Your task to perform on an android device: check battery use Image 0: 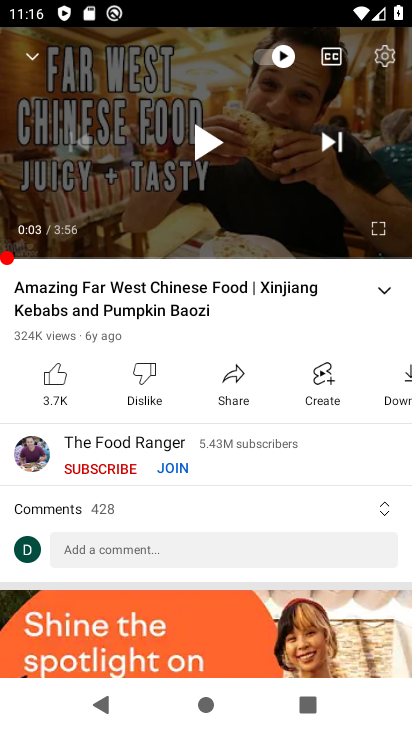
Step 0: press home button
Your task to perform on an android device: check battery use Image 1: 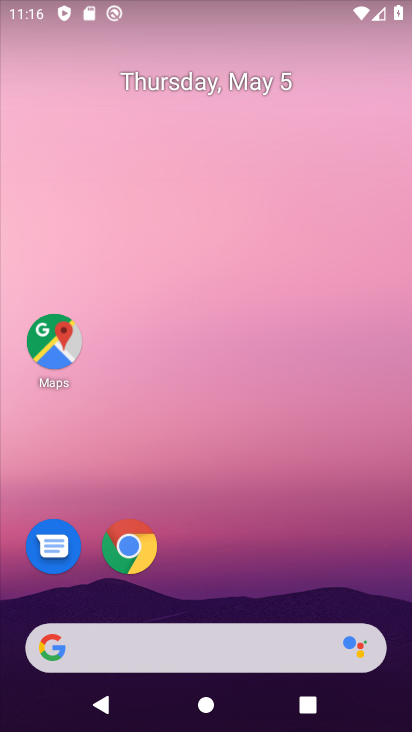
Step 1: drag from (241, 599) to (152, 75)
Your task to perform on an android device: check battery use Image 2: 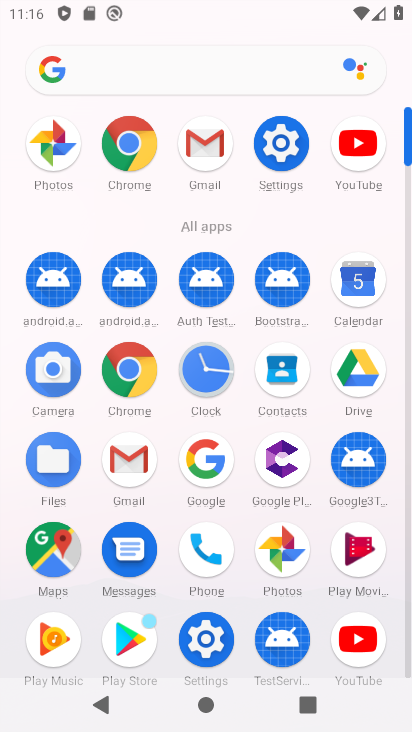
Step 2: click (283, 156)
Your task to perform on an android device: check battery use Image 3: 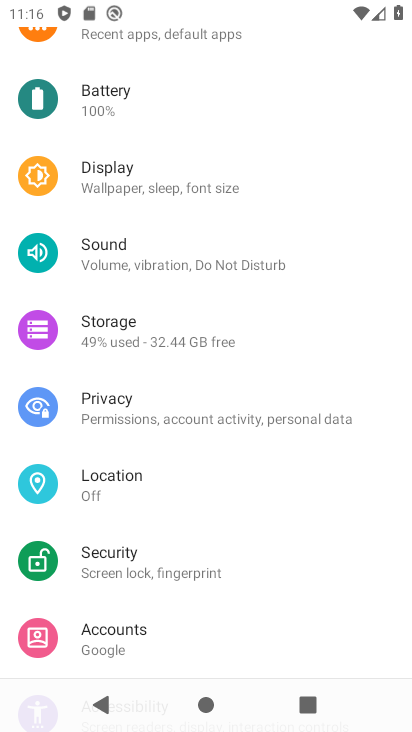
Step 3: click (126, 97)
Your task to perform on an android device: check battery use Image 4: 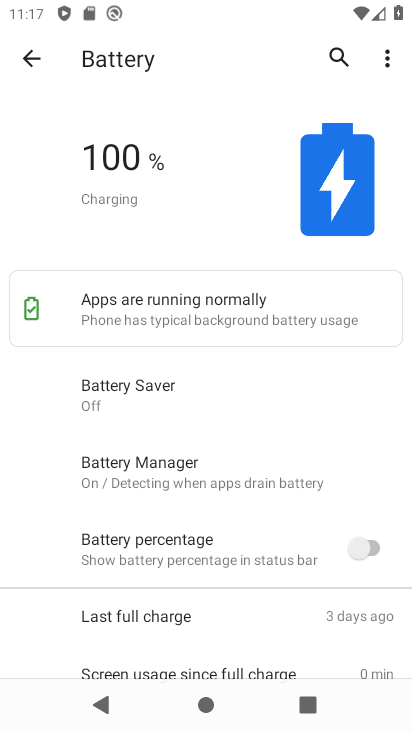
Step 4: click (374, 39)
Your task to perform on an android device: check battery use Image 5: 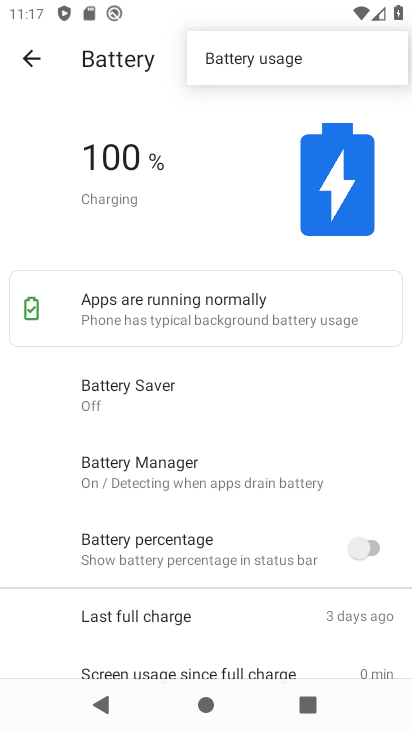
Step 5: click (352, 48)
Your task to perform on an android device: check battery use Image 6: 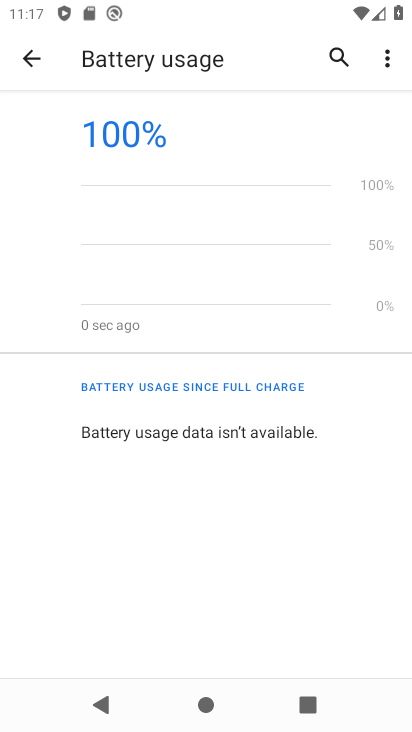
Step 6: task complete